Your task to perform on an android device: Search for seafood restaurants on Google Maps Image 0: 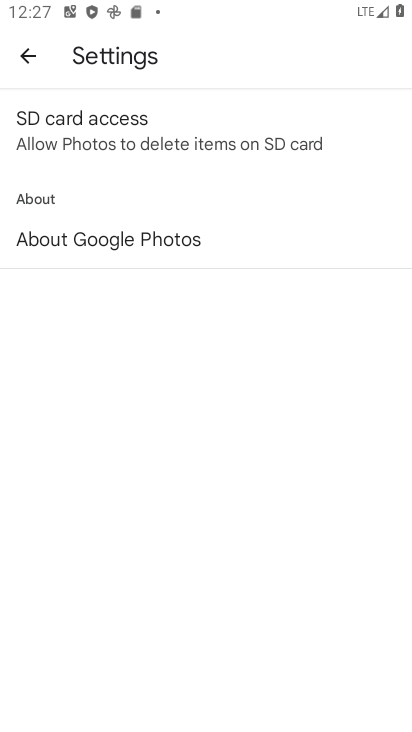
Step 0: press home button
Your task to perform on an android device: Search for seafood restaurants on Google Maps Image 1: 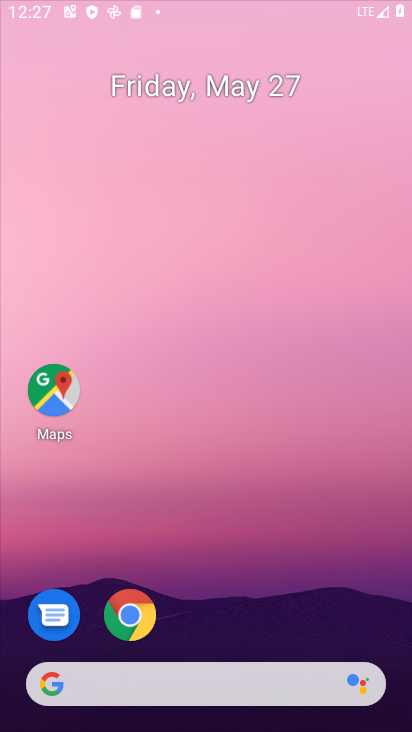
Step 1: drag from (232, 699) to (228, 131)
Your task to perform on an android device: Search for seafood restaurants on Google Maps Image 2: 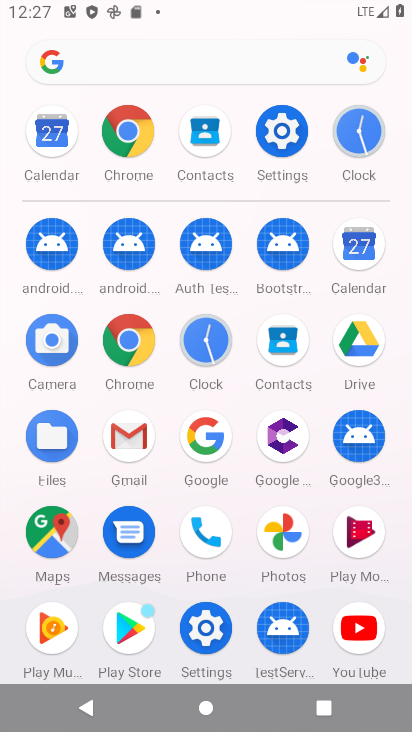
Step 2: click (57, 532)
Your task to perform on an android device: Search for seafood restaurants on Google Maps Image 3: 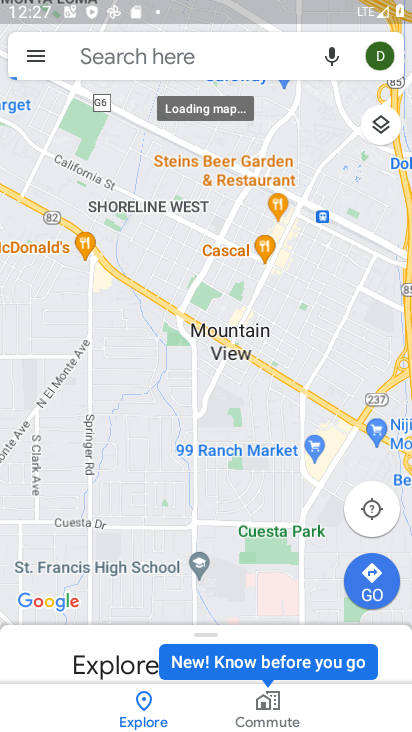
Step 3: click (186, 57)
Your task to perform on an android device: Search for seafood restaurants on Google Maps Image 4: 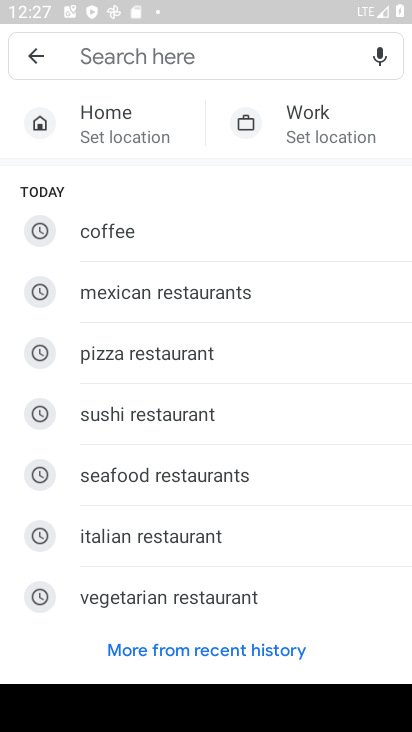
Step 4: click (239, 53)
Your task to perform on an android device: Search for seafood restaurants on Google Maps Image 5: 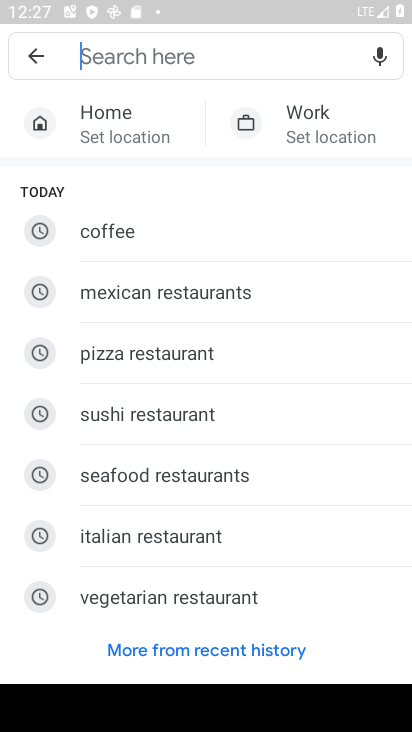
Step 5: click (316, 469)
Your task to perform on an android device: Search for seafood restaurants on Google Maps Image 6: 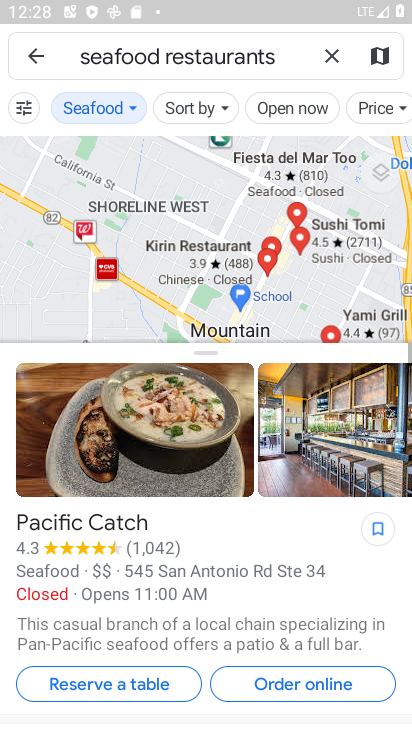
Step 6: task complete